Your task to perform on an android device: add a contact Image 0: 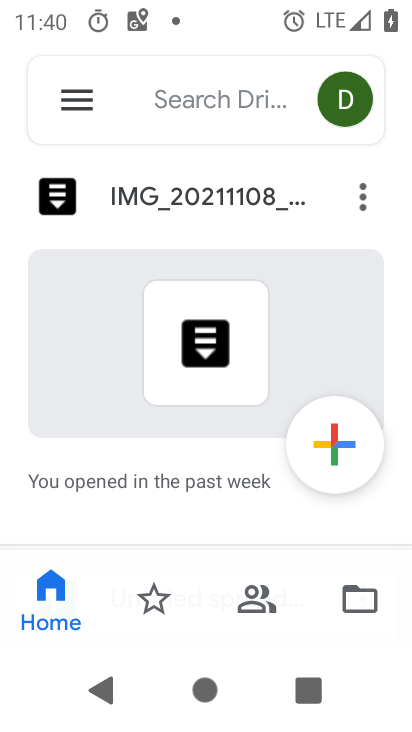
Step 0: press home button
Your task to perform on an android device: add a contact Image 1: 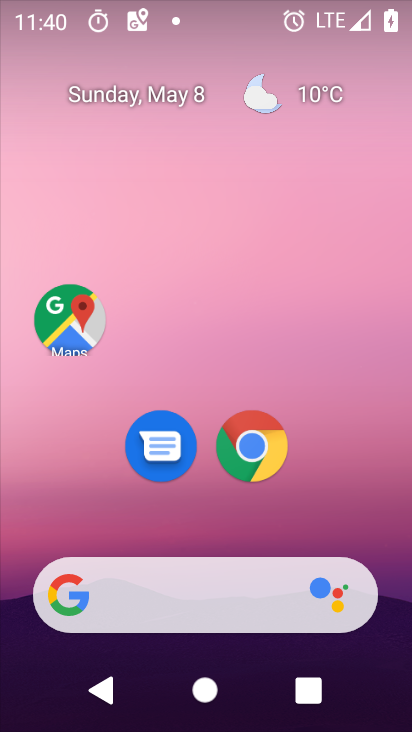
Step 1: drag from (365, 551) to (355, 14)
Your task to perform on an android device: add a contact Image 2: 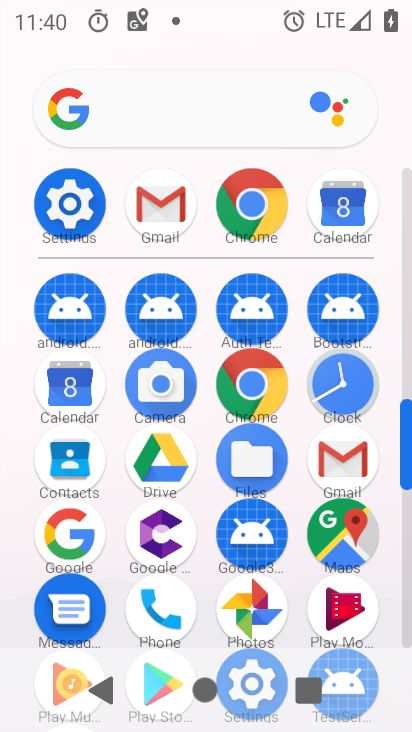
Step 2: click (69, 464)
Your task to perform on an android device: add a contact Image 3: 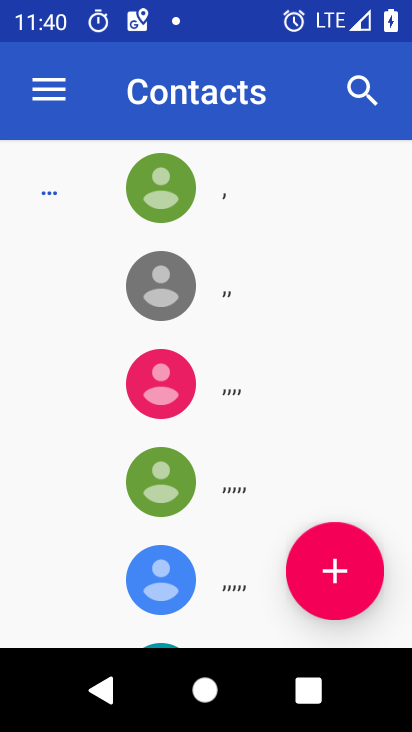
Step 3: click (333, 569)
Your task to perform on an android device: add a contact Image 4: 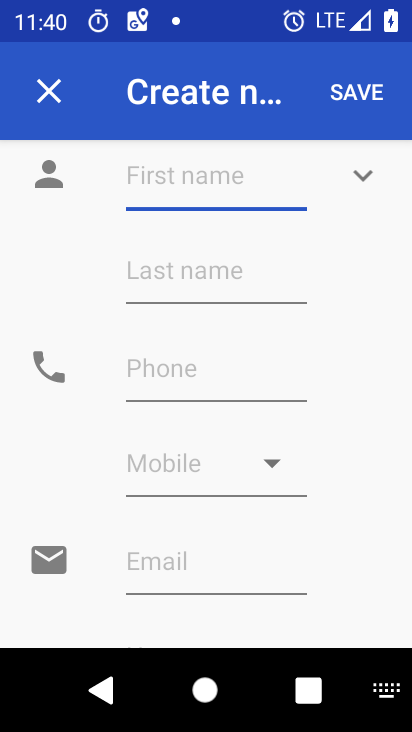
Step 4: click (135, 191)
Your task to perform on an android device: add a contact Image 5: 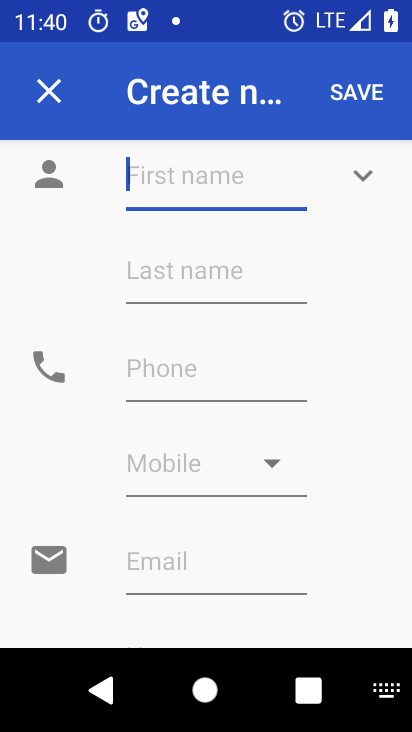
Step 5: type "chini"
Your task to perform on an android device: add a contact Image 6: 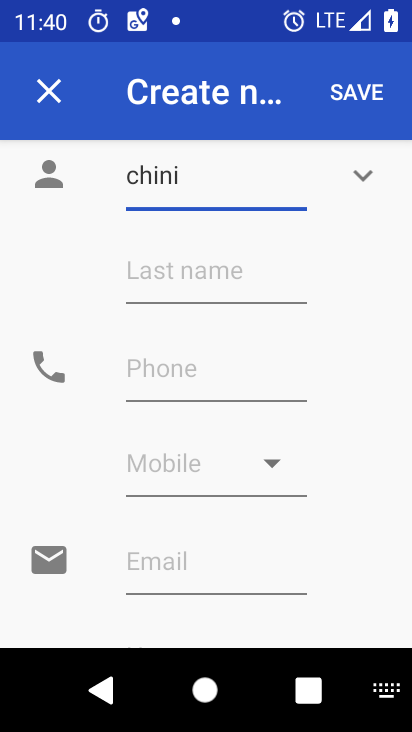
Step 6: click (168, 378)
Your task to perform on an android device: add a contact Image 7: 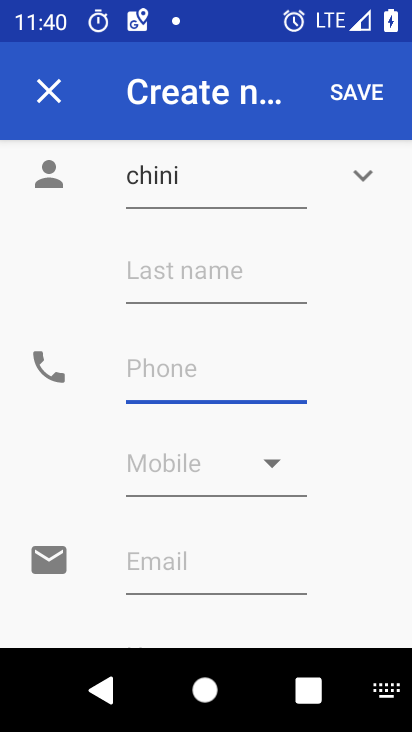
Step 7: type "8765678965"
Your task to perform on an android device: add a contact Image 8: 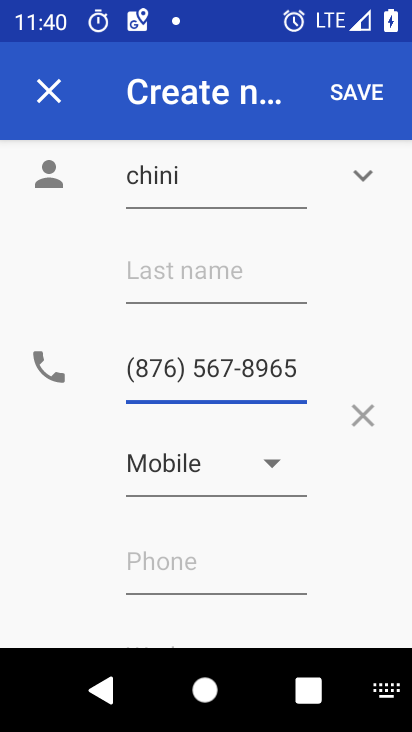
Step 8: click (349, 92)
Your task to perform on an android device: add a contact Image 9: 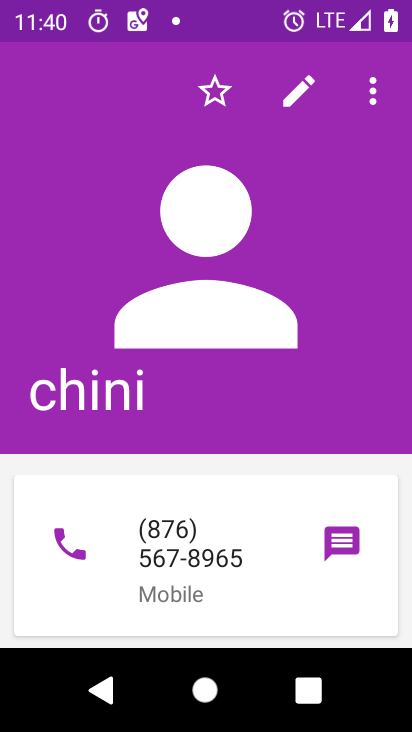
Step 9: task complete